Your task to perform on an android device: turn on sleep mode Image 0: 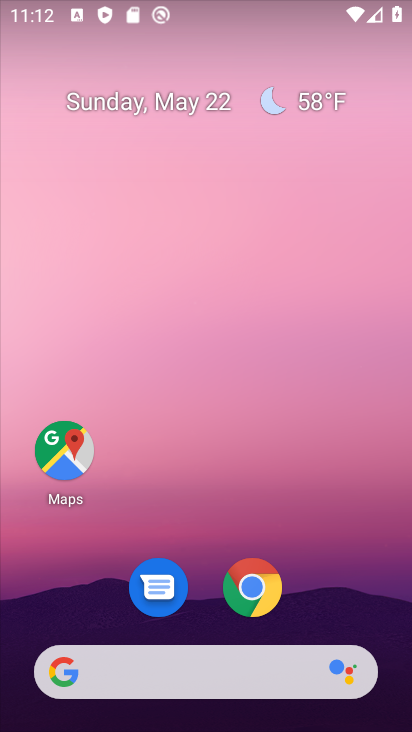
Step 0: drag from (260, 491) to (244, 1)
Your task to perform on an android device: turn on sleep mode Image 1: 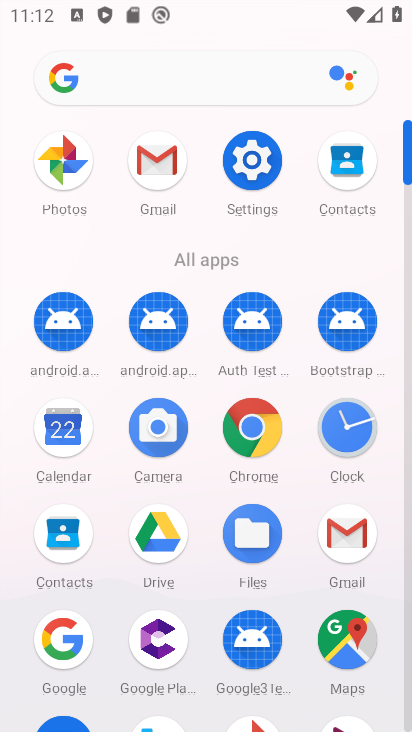
Step 1: click (249, 162)
Your task to perform on an android device: turn on sleep mode Image 2: 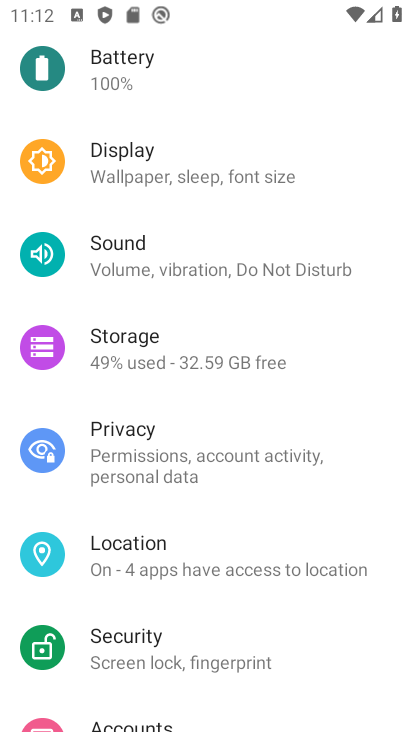
Step 2: click (235, 158)
Your task to perform on an android device: turn on sleep mode Image 3: 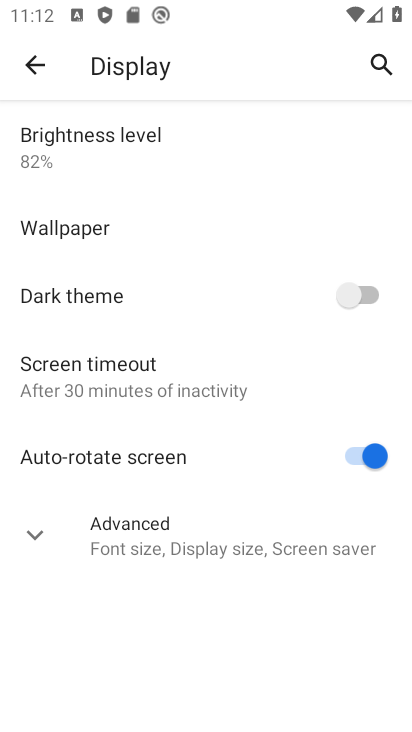
Step 3: click (35, 536)
Your task to perform on an android device: turn on sleep mode Image 4: 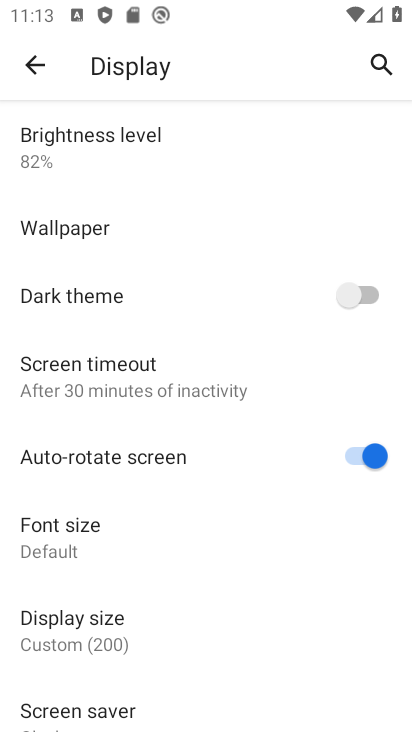
Step 4: task complete